Your task to perform on an android device: toggle show notifications on the lock screen Image 0: 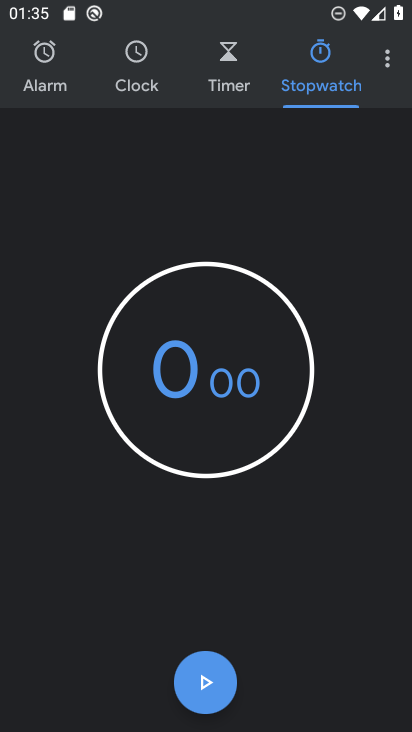
Step 0: press home button
Your task to perform on an android device: toggle show notifications on the lock screen Image 1: 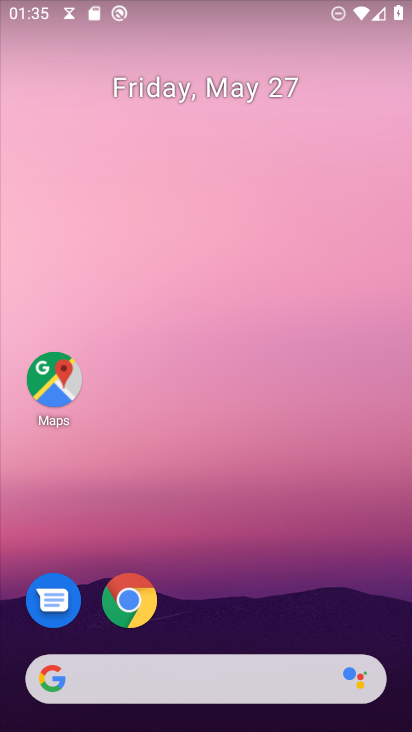
Step 1: drag from (251, 580) to (189, 169)
Your task to perform on an android device: toggle show notifications on the lock screen Image 2: 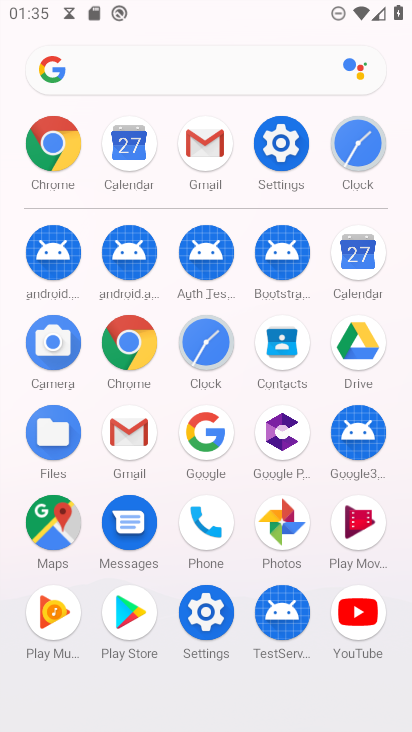
Step 2: click (292, 156)
Your task to perform on an android device: toggle show notifications on the lock screen Image 3: 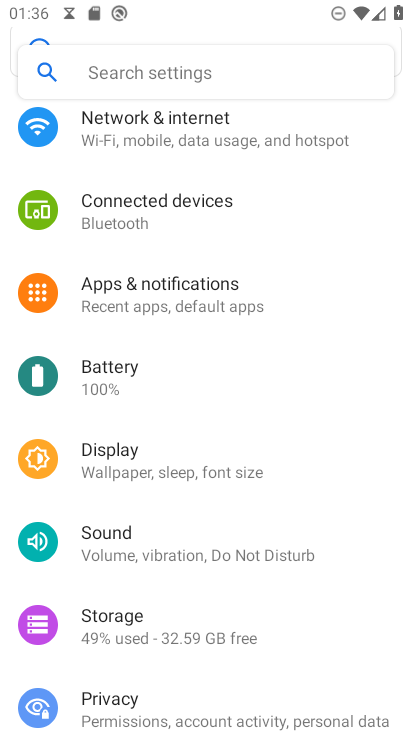
Step 3: click (124, 283)
Your task to perform on an android device: toggle show notifications on the lock screen Image 4: 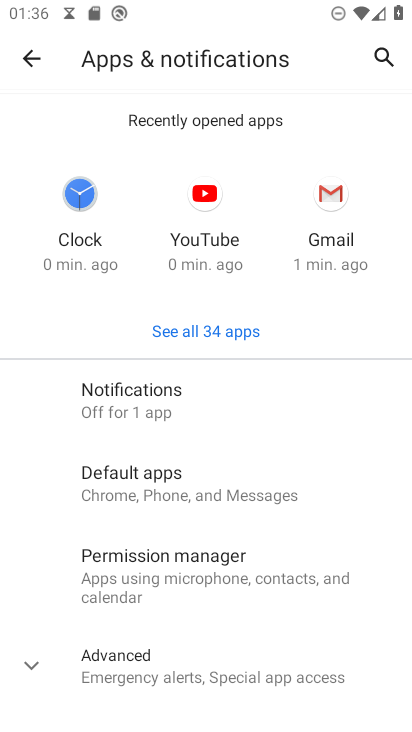
Step 4: click (166, 396)
Your task to perform on an android device: toggle show notifications on the lock screen Image 5: 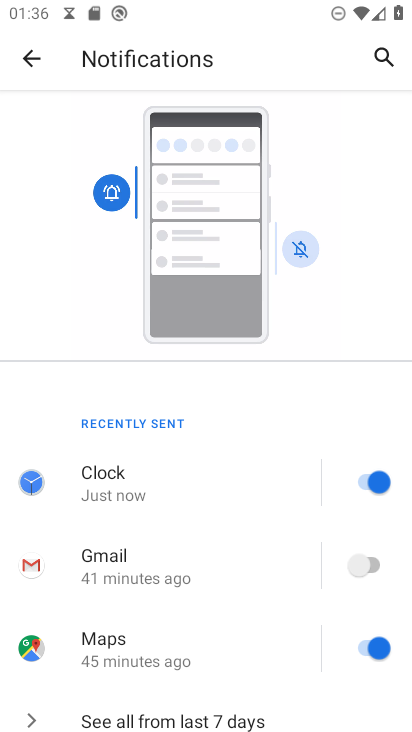
Step 5: drag from (189, 667) to (177, 363)
Your task to perform on an android device: toggle show notifications on the lock screen Image 6: 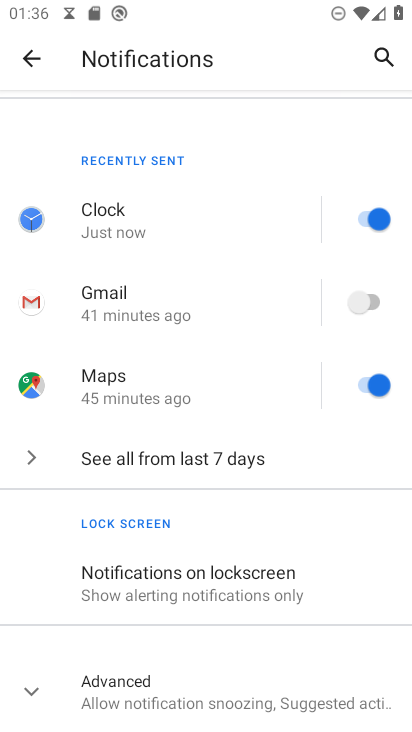
Step 6: click (198, 584)
Your task to perform on an android device: toggle show notifications on the lock screen Image 7: 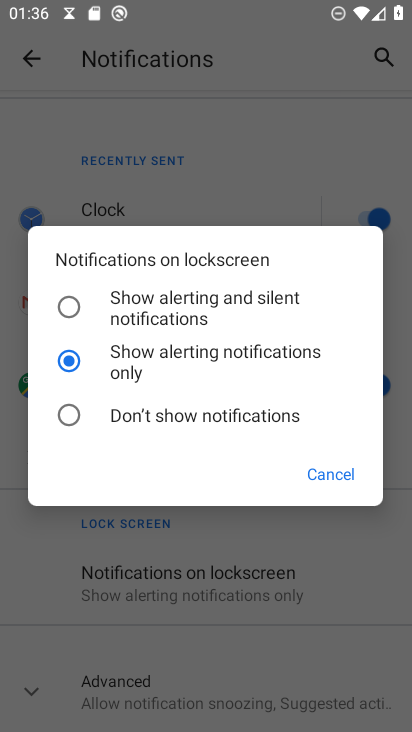
Step 7: click (69, 304)
Your task to perform on an android device: toggle show notifications on the lock screen Image 8: 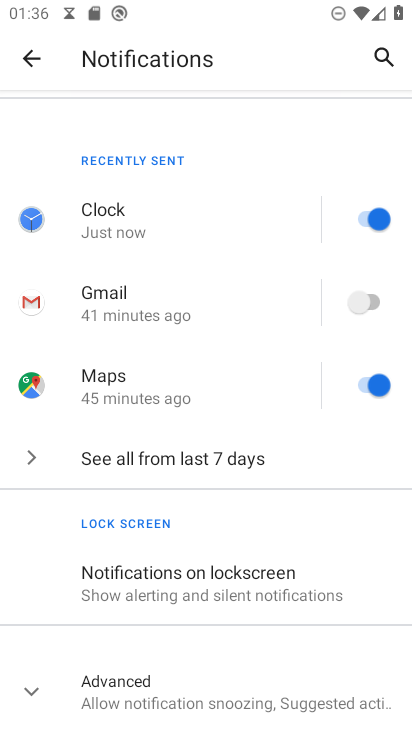
Step 8: task complete